Your task to perform on an android device: set an alarm Image 0: 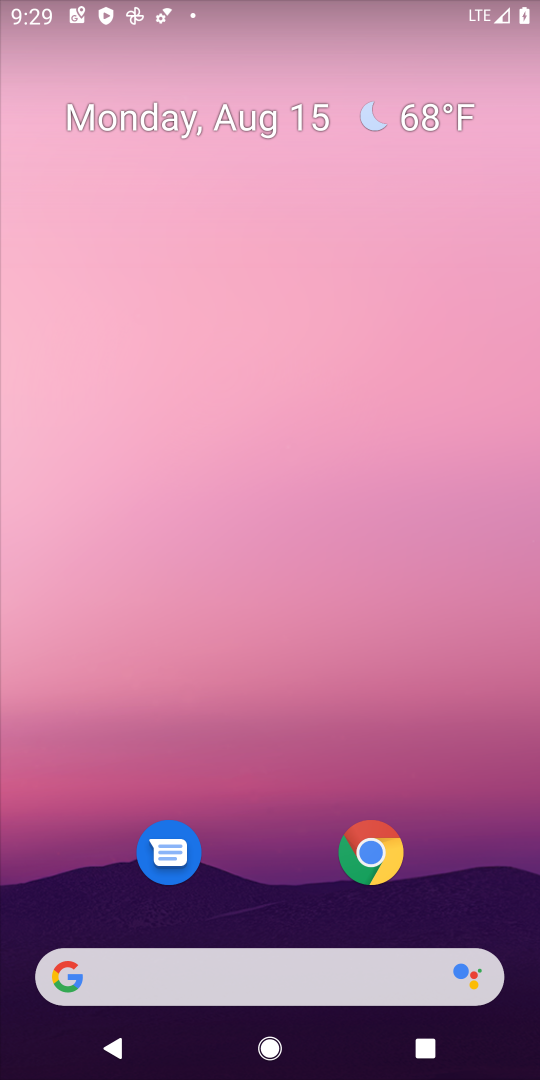
Step 0: drag from (203, 984) to (419, 45)
Your task to perform on an android device: set an alarm Image 1: 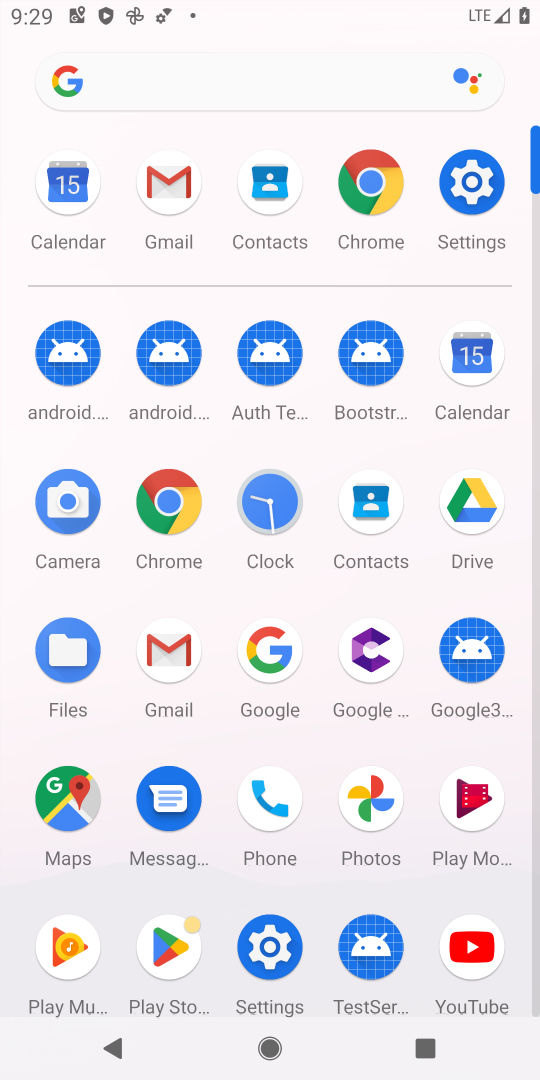
Step 1: click (270, 502)
Your task to perform on an android device: set an alarm Image 2: 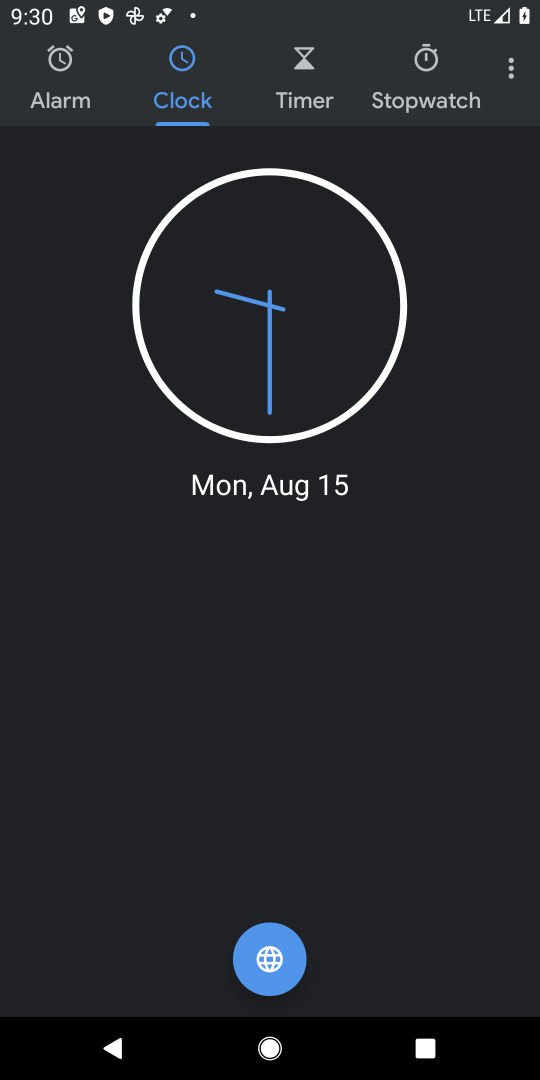
Step 2: click (64, 66)
Your task to perform on an android device: set an alarm Image 3: 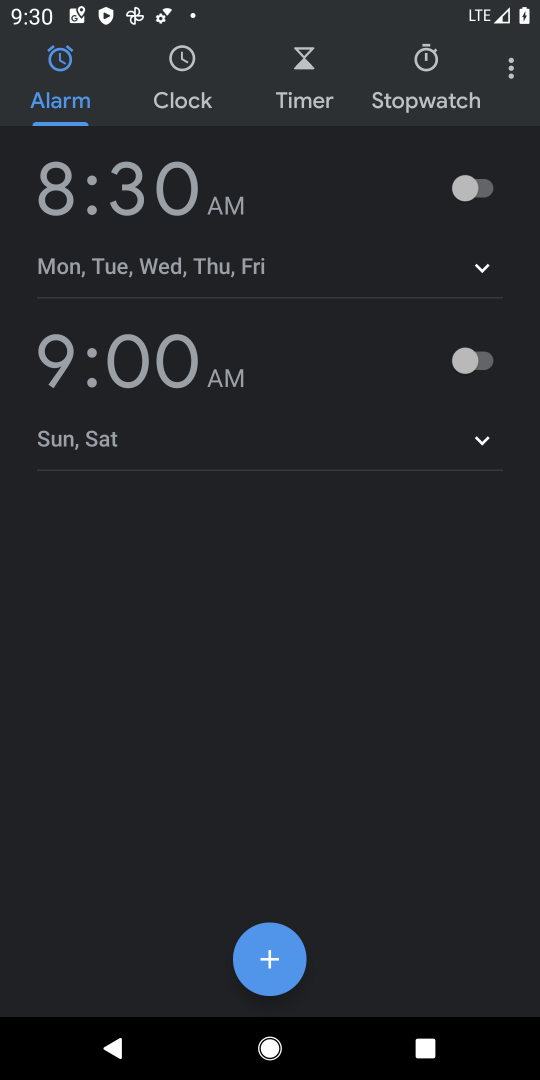
Step 3: click (222, 206)
Your task to perform on an android device: set an alarm Image 4: 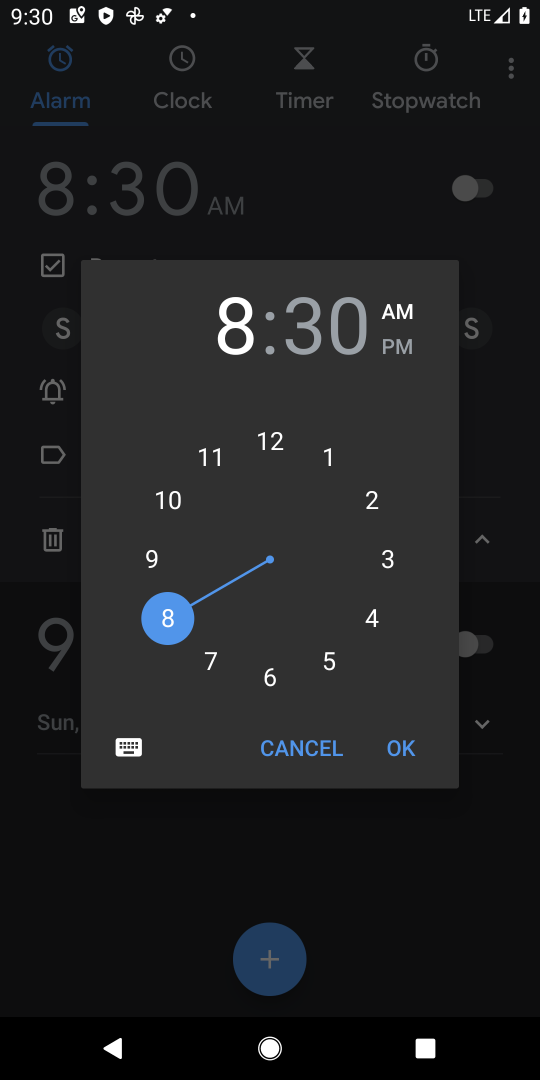
Step 4: click (271, 680)
Your task to perform on an android device: set an alarm Image 5: 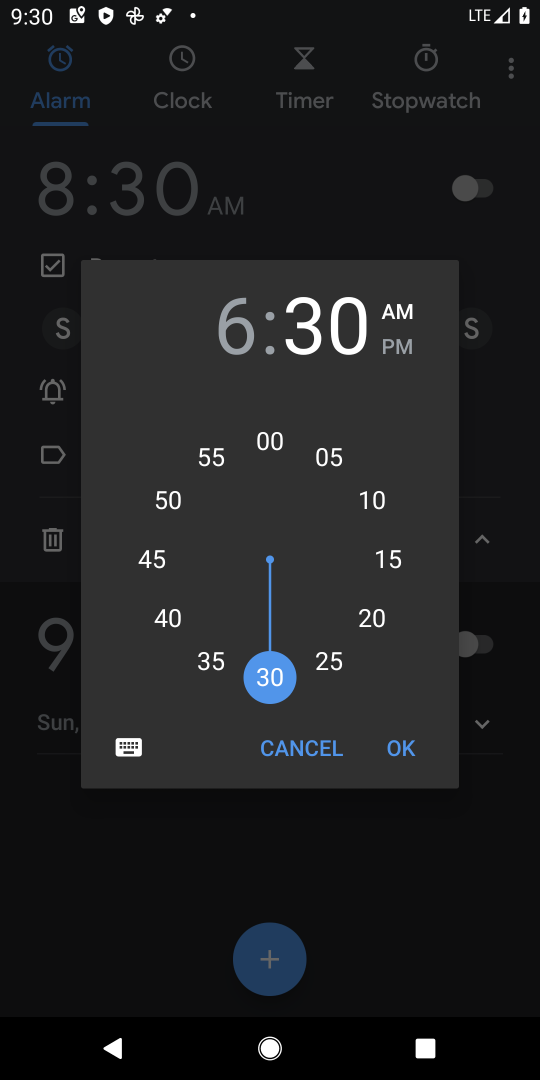
Step 5: click (404, 344)
Your task to perform on an android device: set an alarm Image 6: 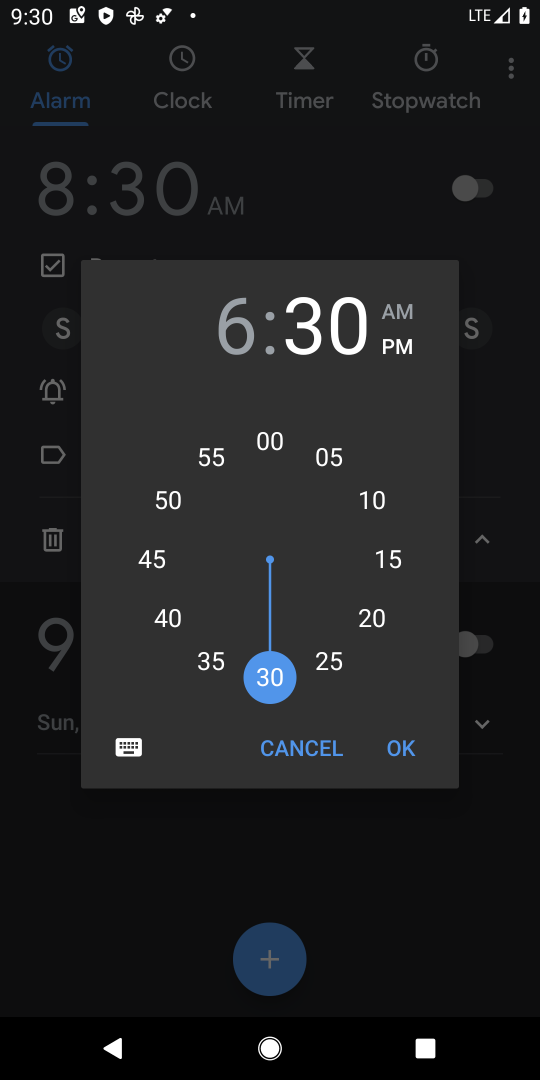
Step 6: click (403, 754)
Your task to perform on an android device: set an alarm Image 7: 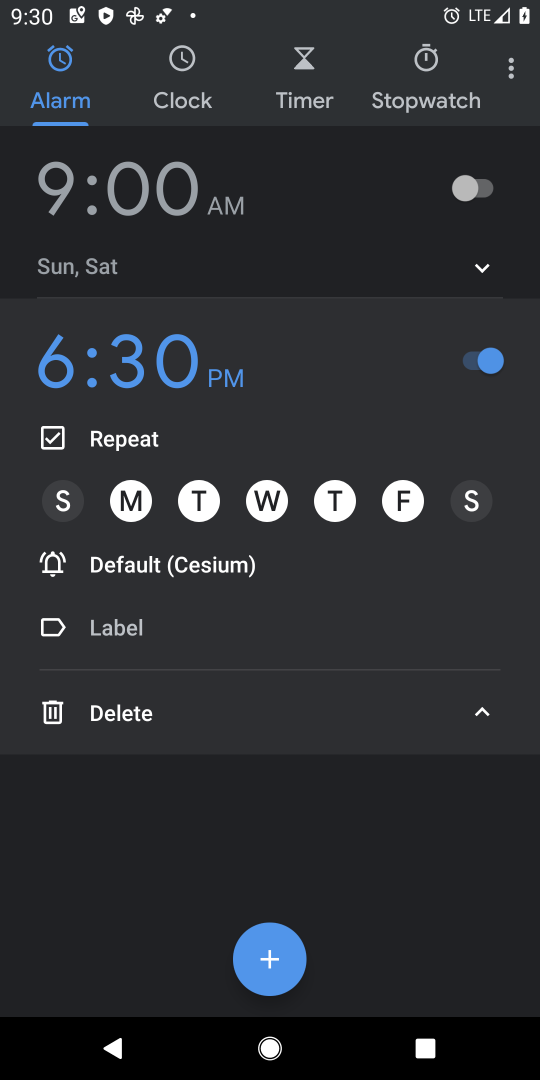
Step 7: task complete